Your task to perform on an android device: Open Youtube and go to the subscriptions tab Image 0: 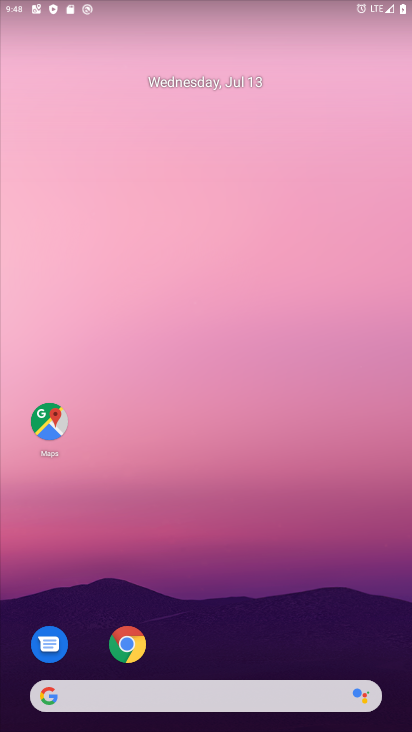
Step 0: drag from (262, 720) to (258, 133)
Your task to perform on an android device: Open Youtube and go to the subscriptions tab Image 1: 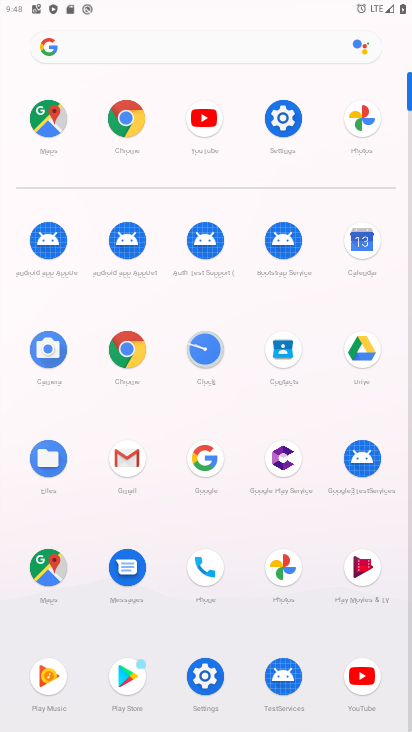
Step 1: click (369, 675)
Your task to perform on an android device: Open Youtube and go to the subscriptions tab Image 2: 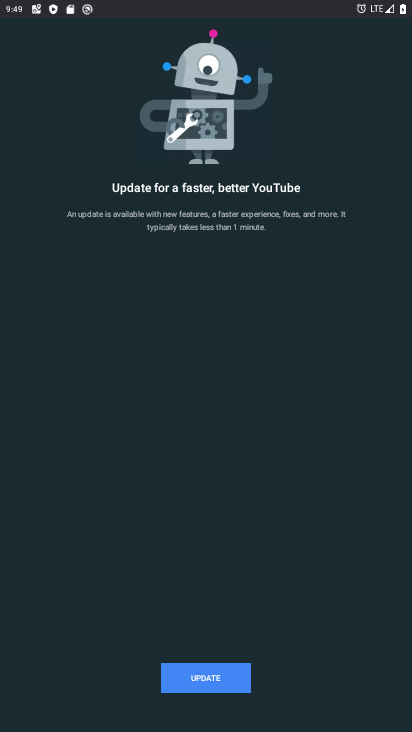
Step 2: task complete